Your task to perform on an android device: all mails in gmail Image 0: 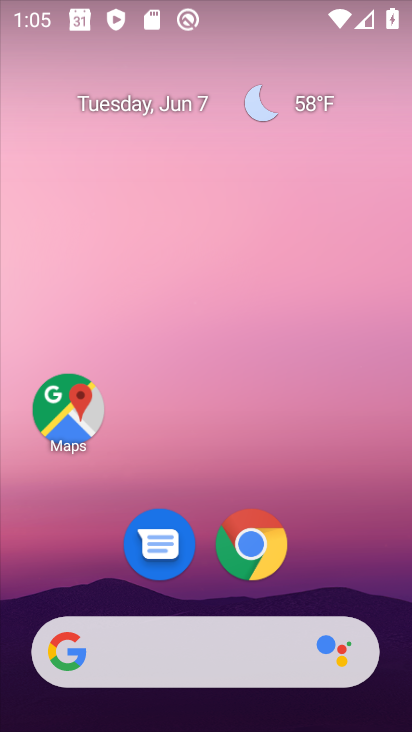
Step 0: drag from (164, 667) to (323, 14)
Your task to perform on an android device: all mails in gmail Image 1: 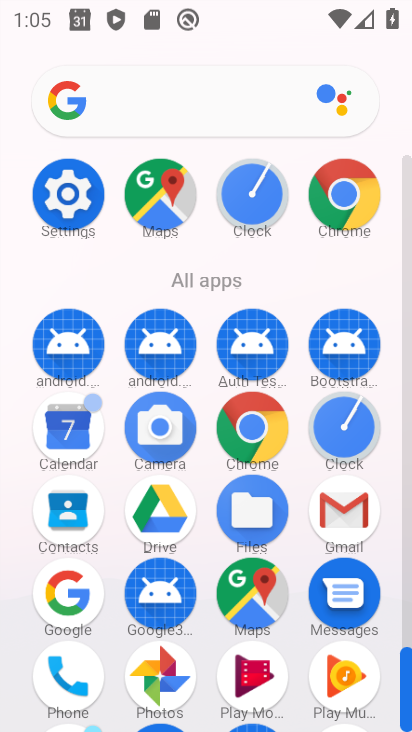
Step 1: click (329, 511)
Your task to perform on an android device: all mails in gmail Image 2: 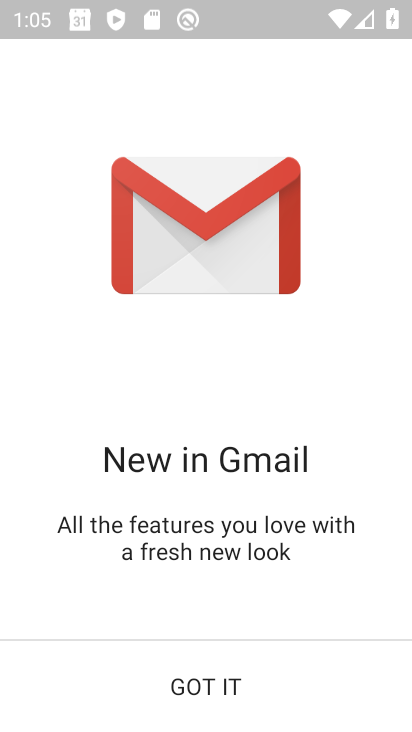
Step 2: click (171, 690)
Your task to perform on an android device: all mails in gmail Image 3: 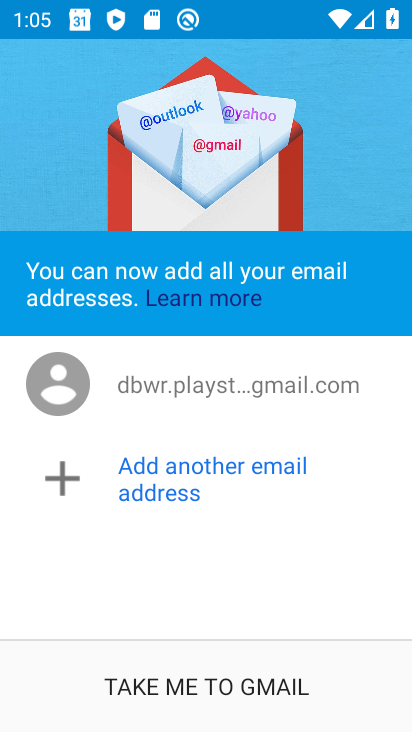
Step 3: click (180, 685)
Your task to perform on an android device: all mails in gmail Image 4: 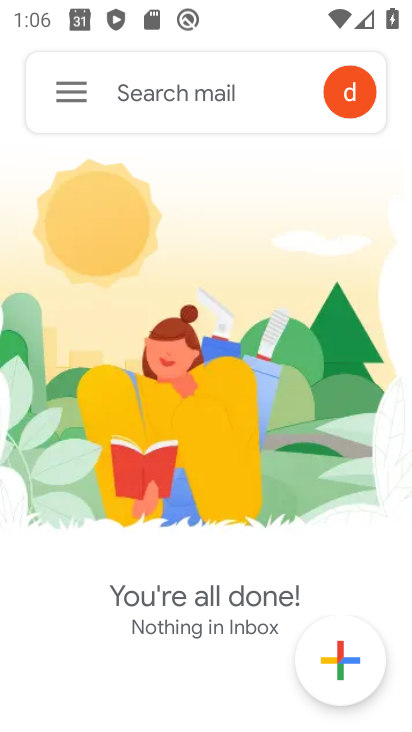
Step 4: click (66, 105)
Your task to perform on an android device: all mails in gmail Image 5: 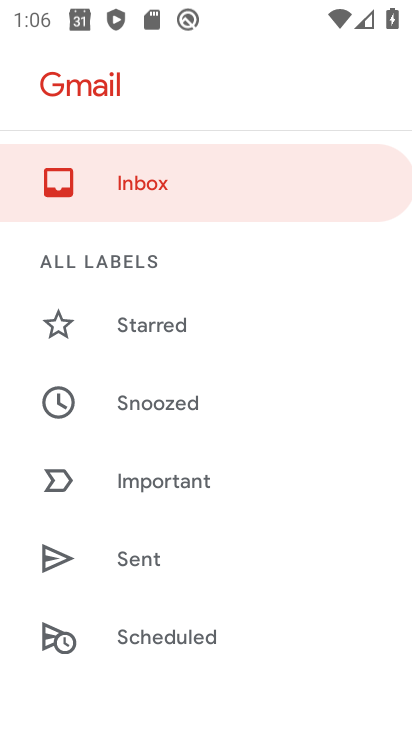
Step 5: drag from (209, 602) to (306, 191)
Your task to perform on an android device: all mails in gmail Image 6: 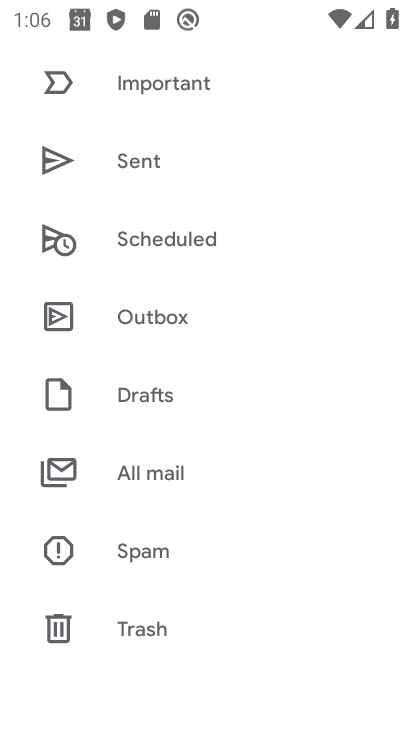
Step 6: click (170, 462)
Your task to perform on an android device: all mails in gmail Image 7: 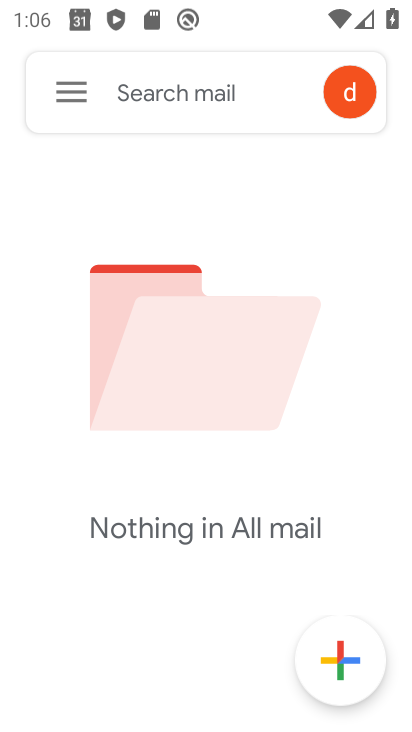
Step 7: task complete